Your task to perform on an android device: allow notifications from all sites in the chrome app Image 0: 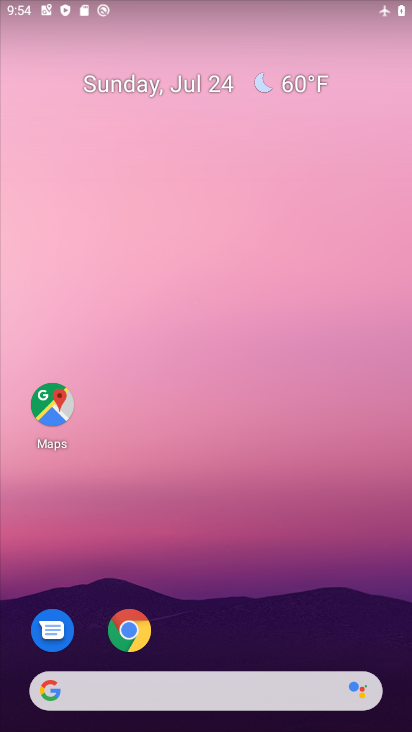
Step 0: drag from (208, 650) to (235, 205)
Your task to perform on an android device: allow notifications from all sites in the chrome app Image 1: 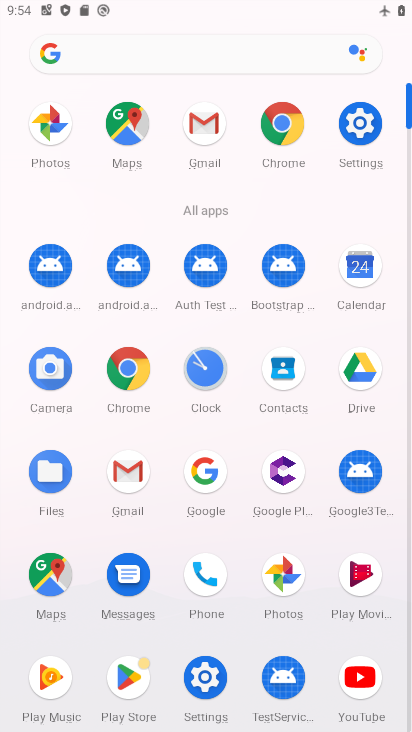
Step 1: click (124, 374)
Your task to perform on an android device: allow notifications from all sites in the chrome app Image 2: 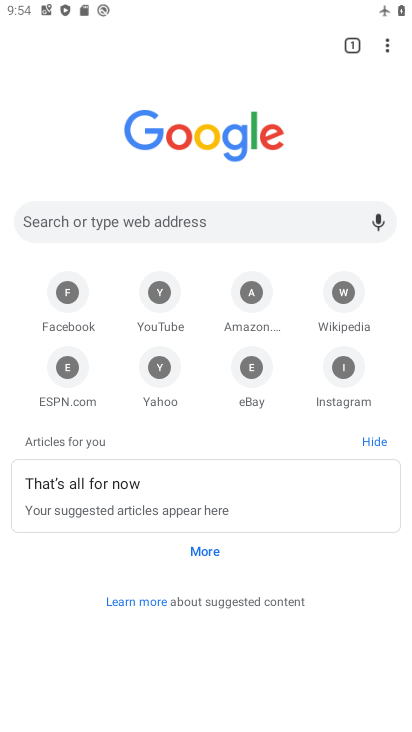
Step 2: click (383, 42)
Your task to perform on an android device: allow notifications from all sites in the chrome app Image 3: 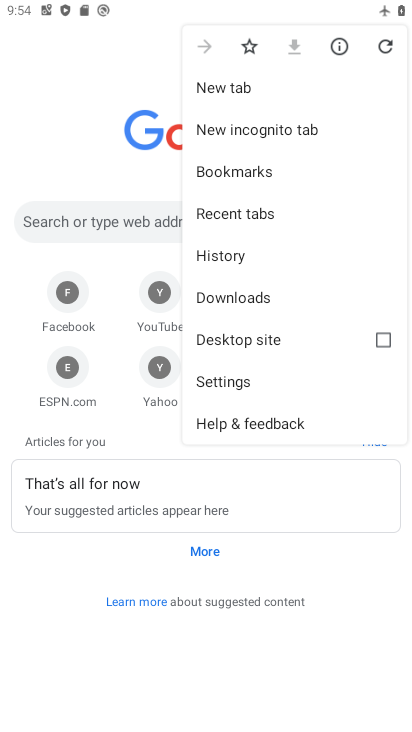
Step 3: click (232, 380)
Your task to perform on an android device: allow notifications from all sites in the chrome app Image 4: 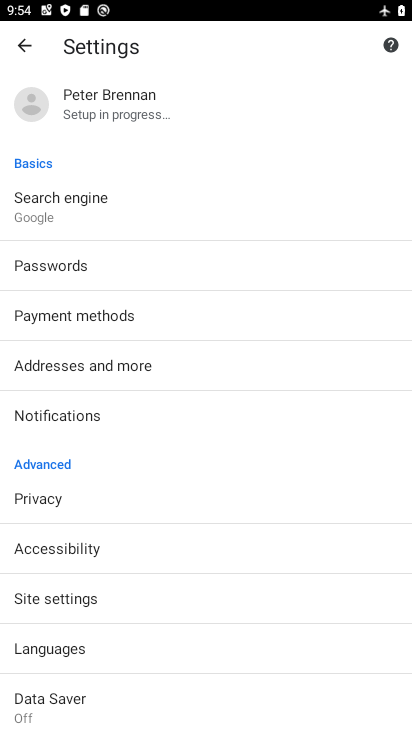
Step 4: click (88, 419)
Your task to perform on an android device: allow notifications from all sites in the chrome app Image 5: 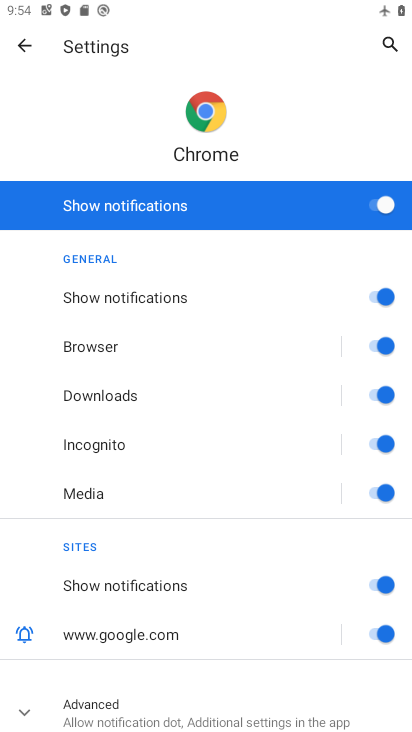
Step 5: task complete